Your task to perform on an android device: Open the web browser Image 0: 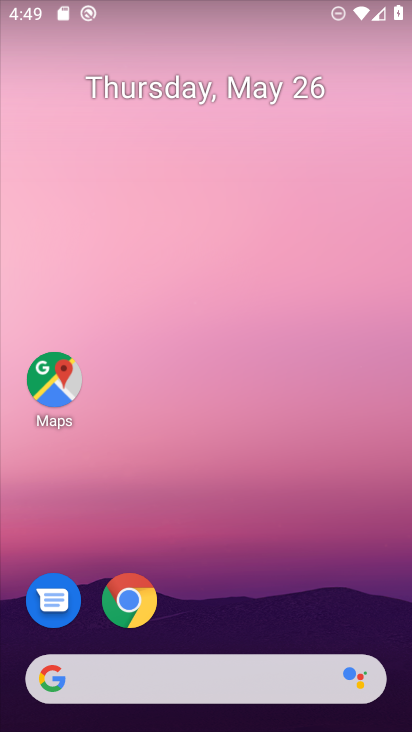
Step 0: click (133, 603)
Your task to perform on an android device: Open the web browser Image 1: 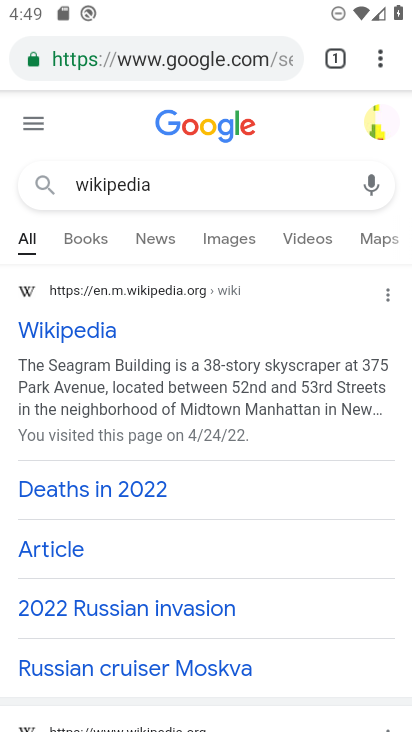
Step 1: task complete